Your task to perform on an android device: Go to Google Image 0: 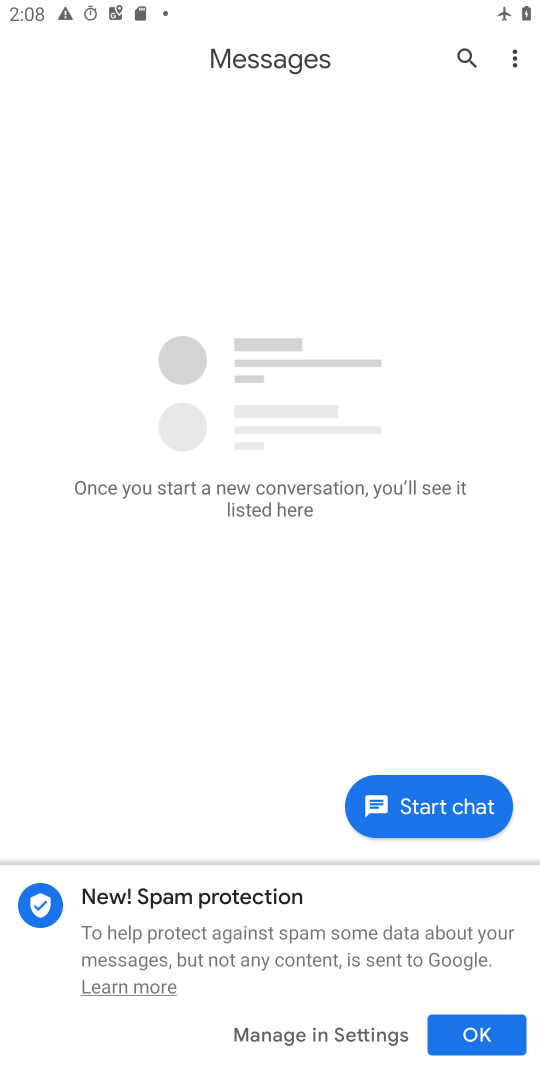
Step 0: press home button
Your task to perform on an android device: Go to Google Image 1: 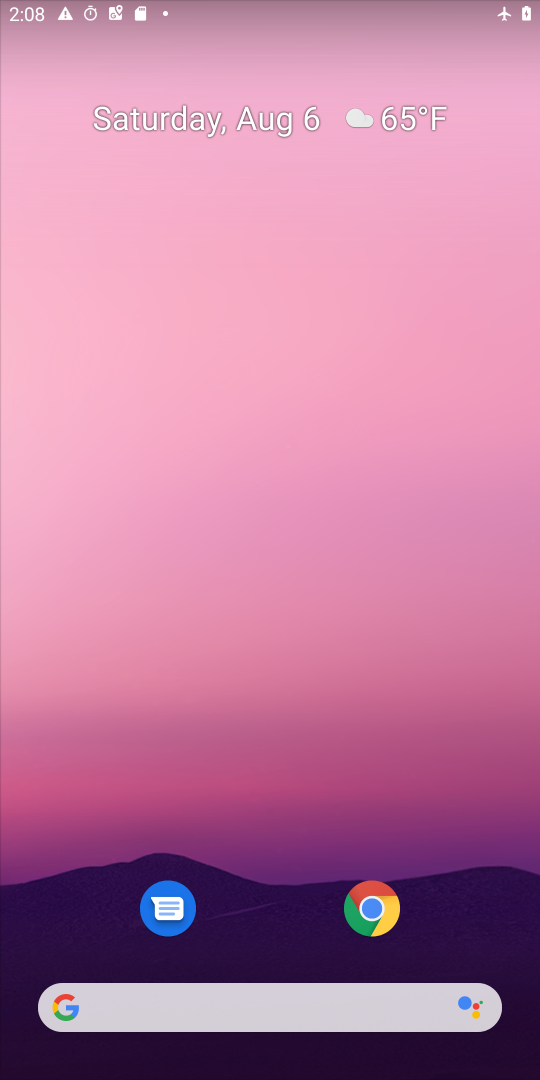
Step 1: drag from (257, 882) to (195, 7)
Your task to perform on an android device: Go to Google Image 2: 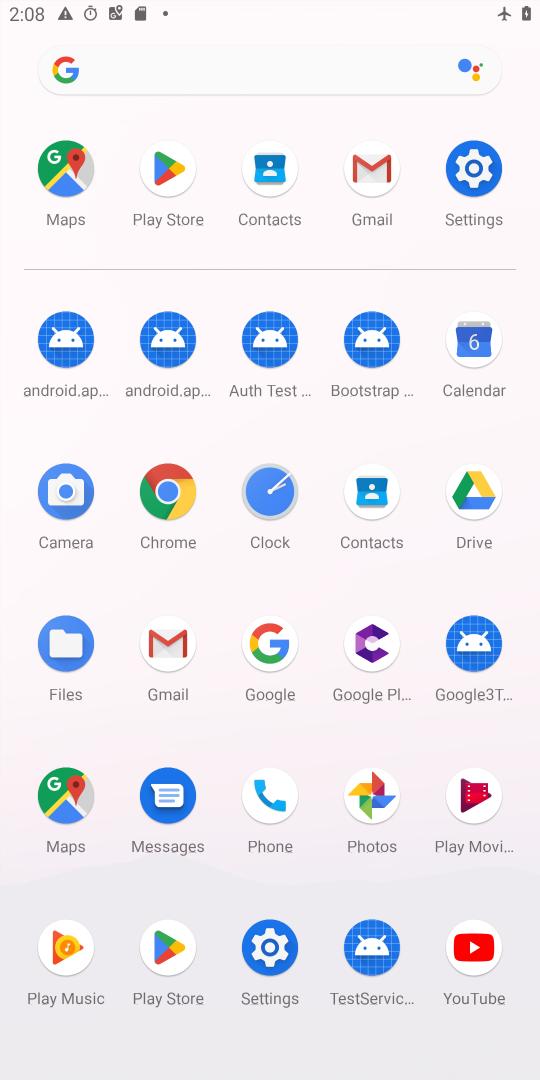
Step 2: click (257, 641)
Your task to perform on an android device: Go to Google Image 3: 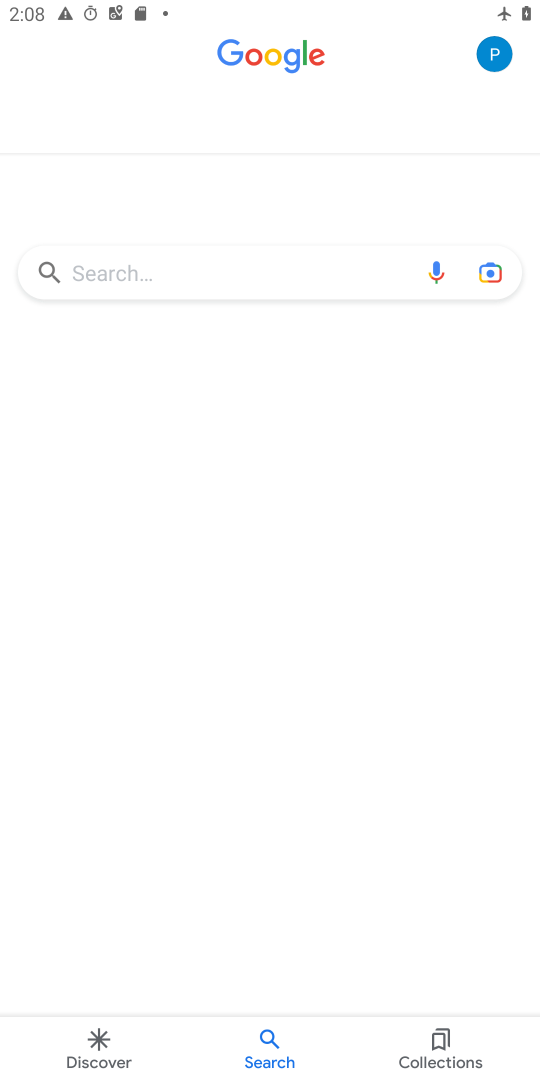
Step 3: task complete